Your task to perform on an android device: check data usage Image 0: 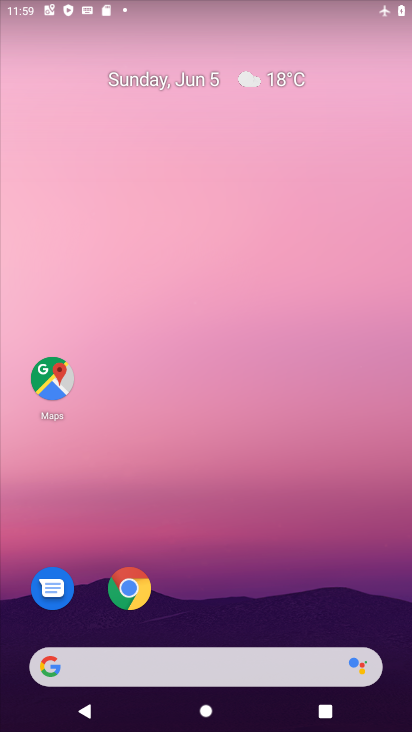
Step 0: drag from (328, 6) to (321, 412)
Your task to perform on an android device: check data usage Image 1: 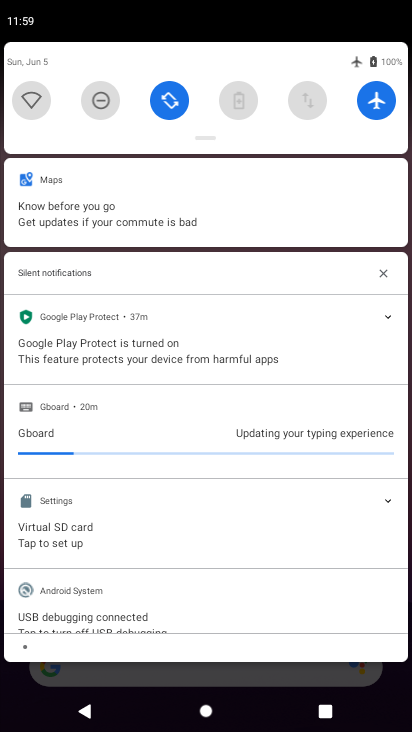
Step 1: click (378, 107)
Your task to perform on an android device: check data usage Image 2: 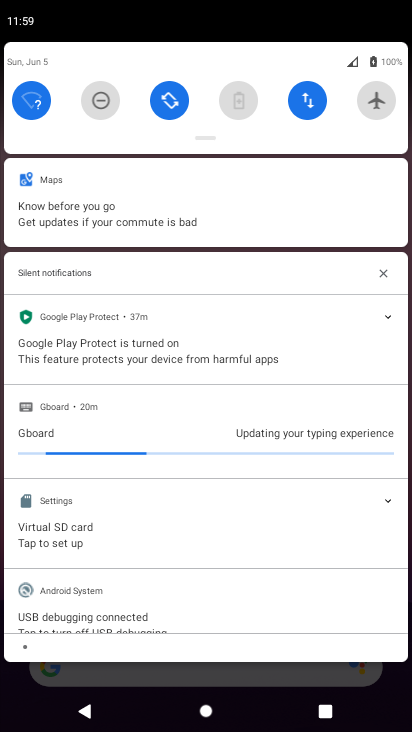
Step 2: press home button
Your task to perform on an android device: check data usage Image 3: 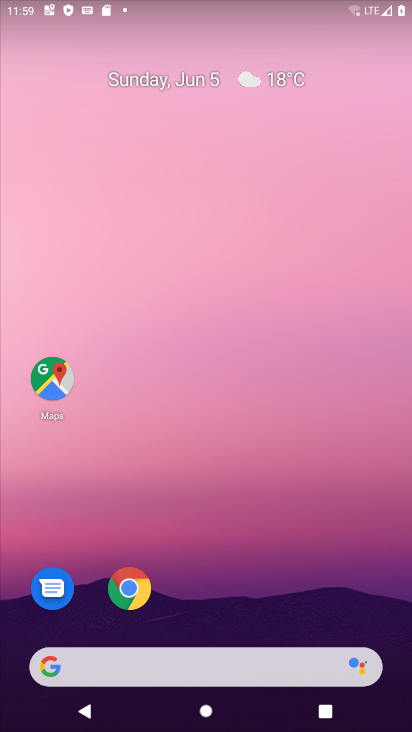
Step 3: drag from (230, 606) to (218, 133)
Your task to perform on an android device: check data usage Image 4: 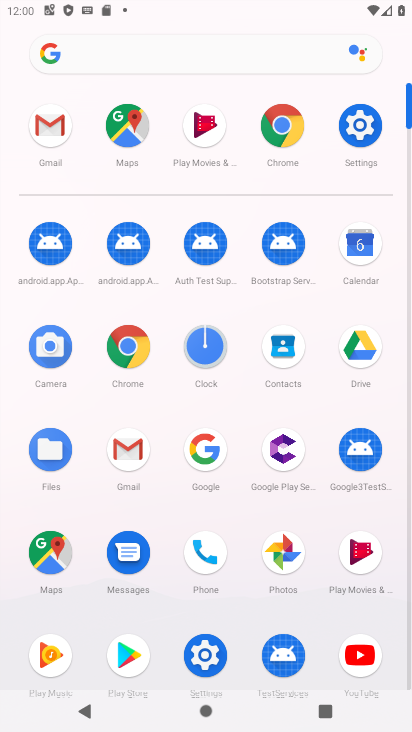
Step 4: click (367, 121)
Your task to perform on an android device: check data usage Image 5: 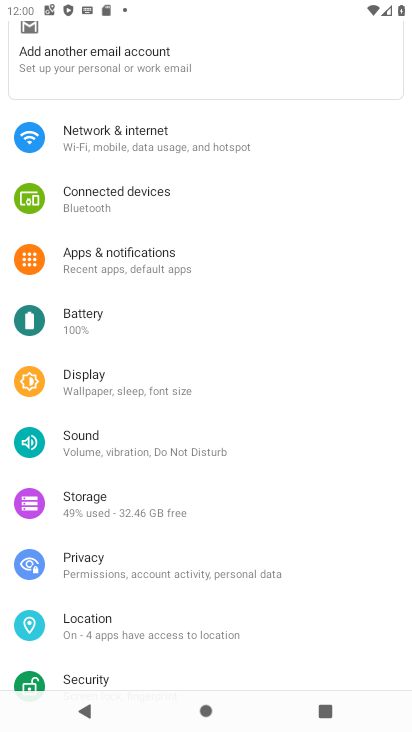
Step 5: click (169, 141)
Your task to perform on an android device: check data usage Image 6: 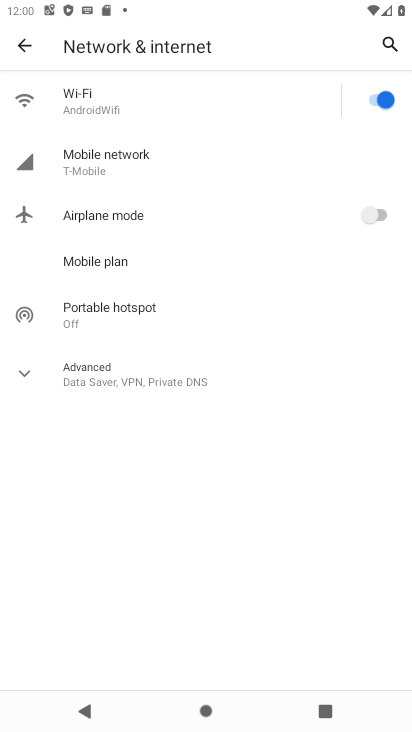
Step 6: click (123, 108)
Your task to perform on an android device: check data usage Image 7: 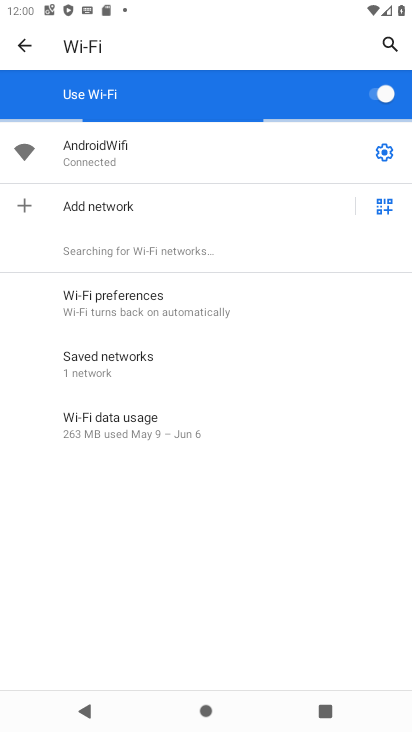
Step 7: click (171, 422)
Your task to perform on an android device: check data usage Image 8: 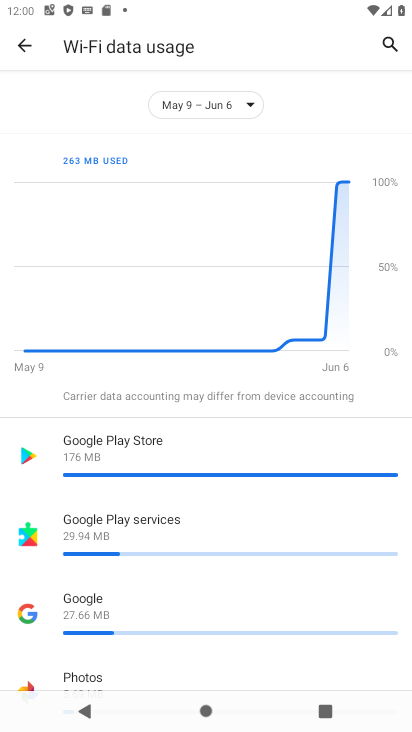
Step 8: task complete